Your task to perform on an android device: Go to accessibility settings Image 0: 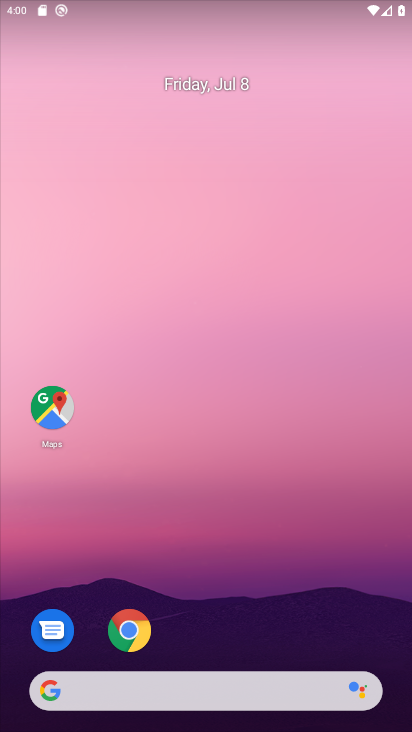
Step 0: drag from (221, 678) to (283, 194)
Your task to perform on an android device: Go to accessibility settings Image 1: 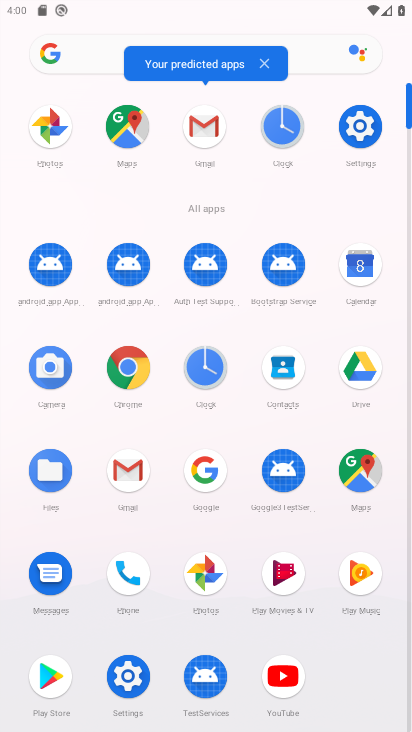
Step 1: click (120, 671)
Your task to perform on an android device: Go to accessibility settings Image 2: 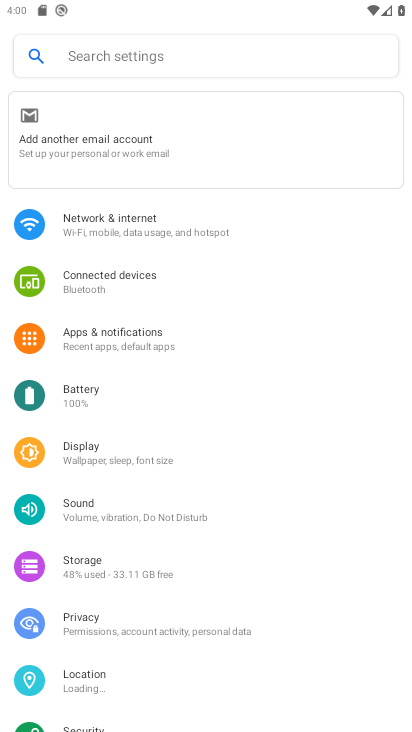
Step 2: drag from (125, 605) to (262, 206)
Your task to perform on an android device: Go to accessibility settings Image 3: 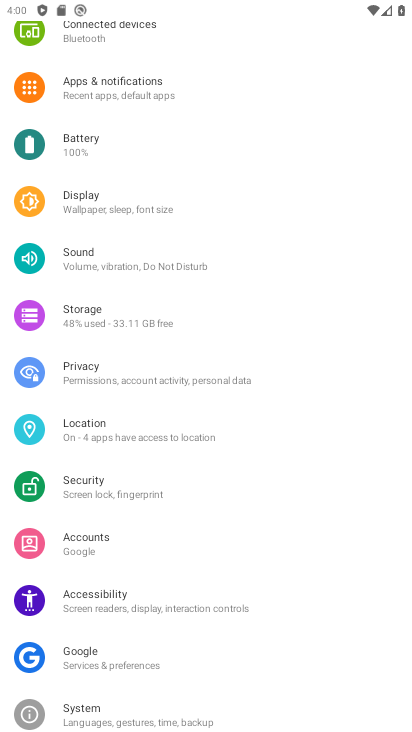
Step 3: click (120, 601)
Your task to perform on an android device: Go to accessibility settings Image 4: 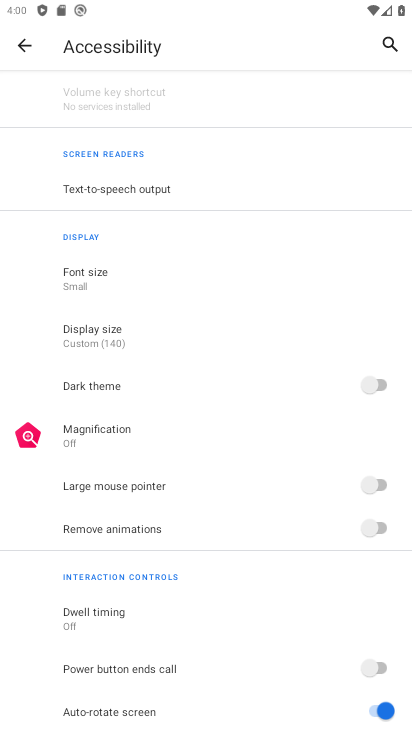
Step 4: task complete